Your task to perform on an android device: turn on priority inbox in the gmail app Image 0: 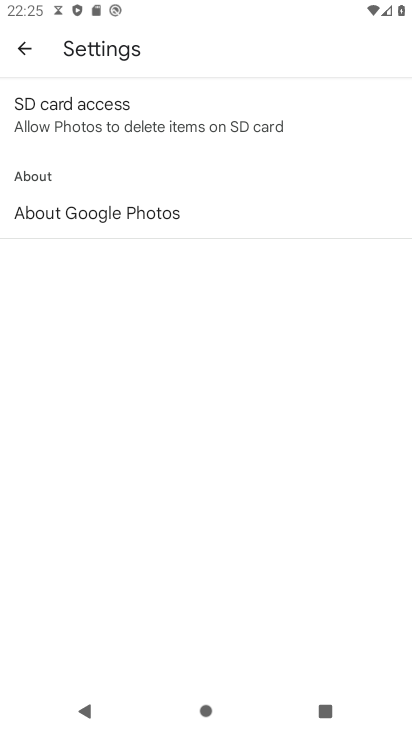
Step 0: press back button
Your task to perform on an android device: turn on priority inbox in the gmail app Image 1: 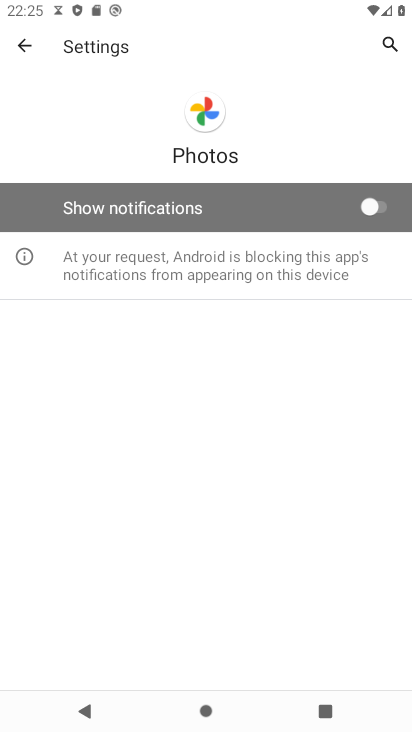
Step 1: press back button
Your task to perform on an android device: turn on priority inbox in the gmail app Image 2: 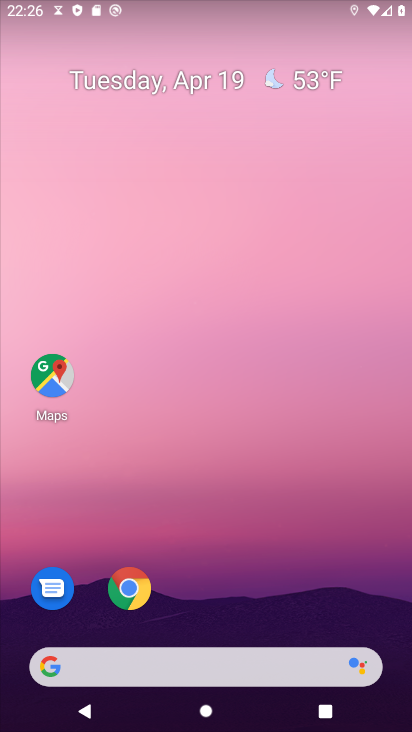
Step 2: drag from (228, 604) to (216, 43)
Your task to perform on an android device: turn on priority inbox in the gmail app Image 3: 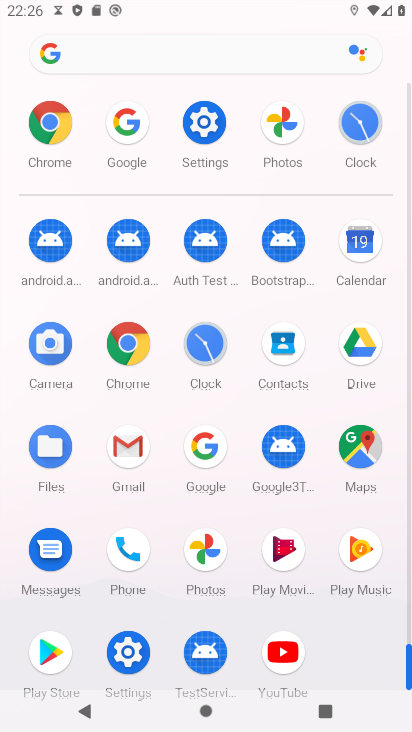
Step 3: click (125, 447)
Your task to perform on an android device: turn on priority inbox in the gmail app Image 4: 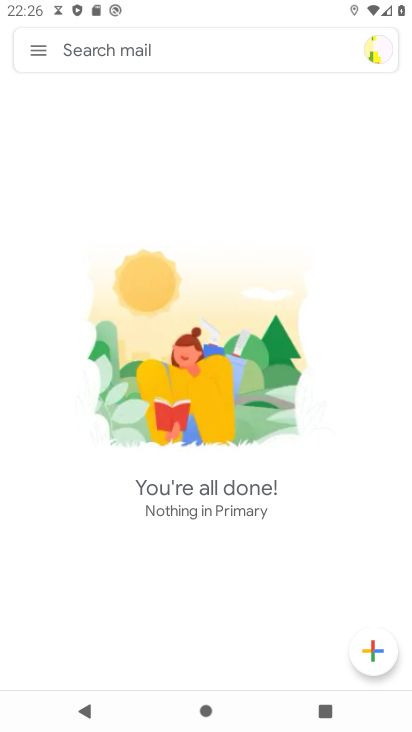
Step 4: click (40, 54)
Your task to perform on an android device: turn on priority inbox in the gmail app Image 5: 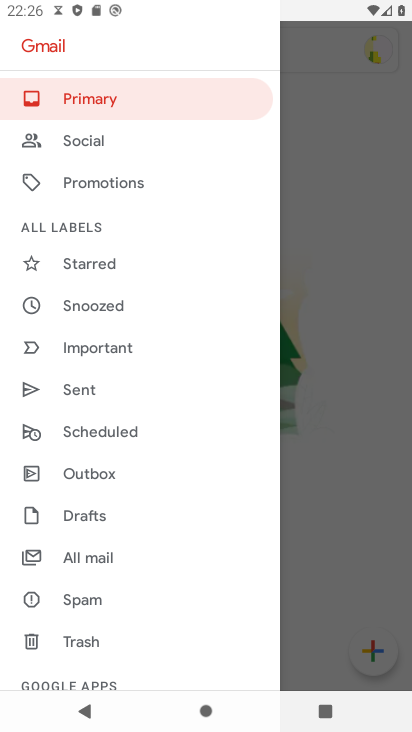
Step 5: drag from (104, 577) to (155, 446)
Your task to perform on an android device: turn on priority inbox in the gmail app Image 6: 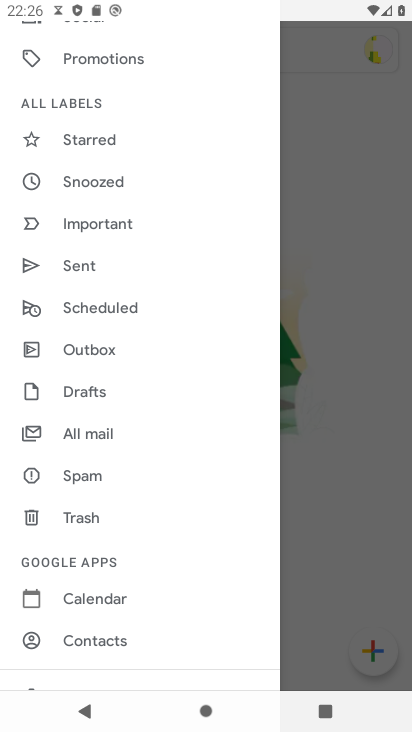
Step 6: drag from (122, 539) to (151, 441)
Your task to perform on an android device: turn on priority inbox in the gmail app Image 7: 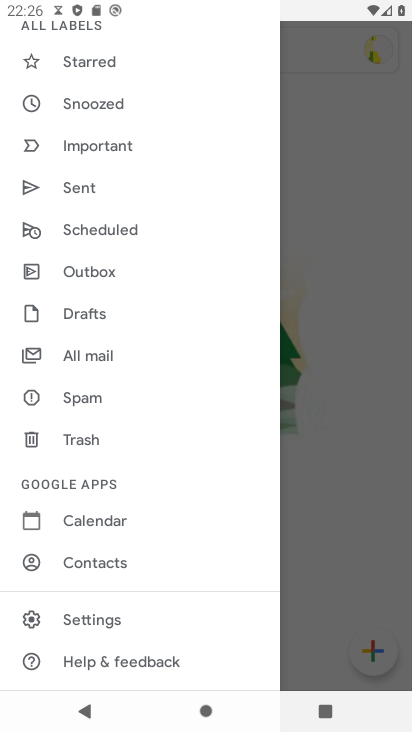
Step 7: click (100, 620)
Your task to perform on an android device: turn on priority inbox in the gmail app Image 8: 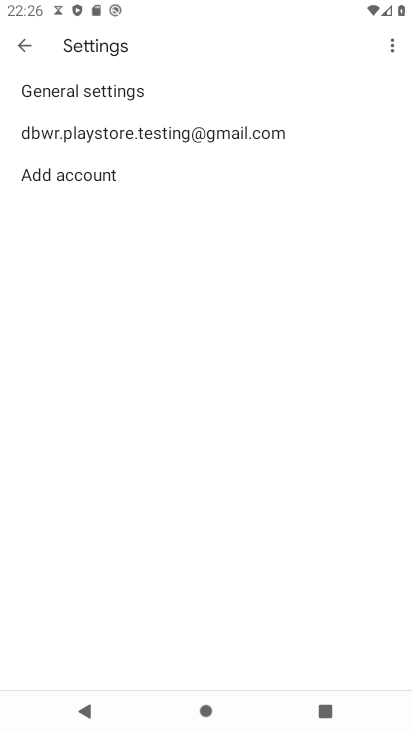
Step 8: click (164, 135)
Your task to perform on an android device: turn on priority inbox in the gmail app Image 9: 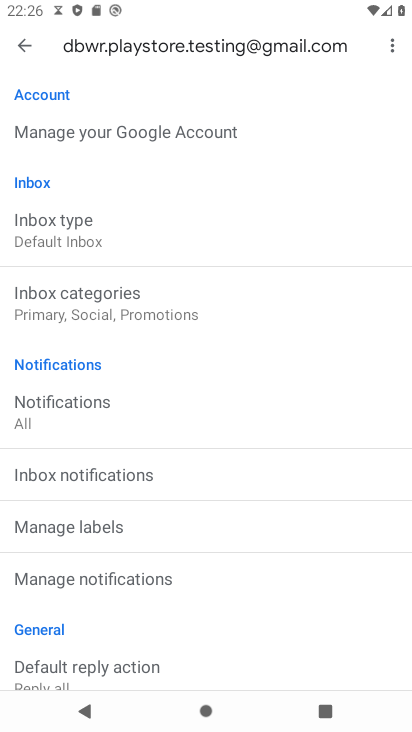
Step 9: click (54, 224)
Your task to perform on an android device: turn on priority inbox in the gmail app Image 10: 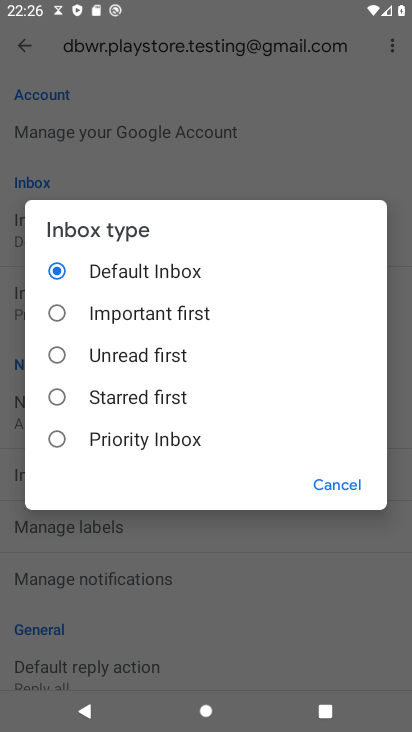
Step 10: click (56, 442)
Your task to perform on an android device: turn on priority inbox in the gmail app Image 11: 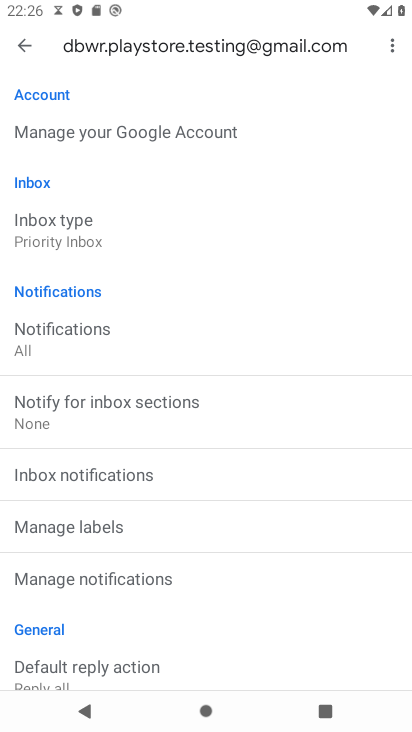
Step 11: task complete